Your task to perform on an android device: turn on location history Image 0: 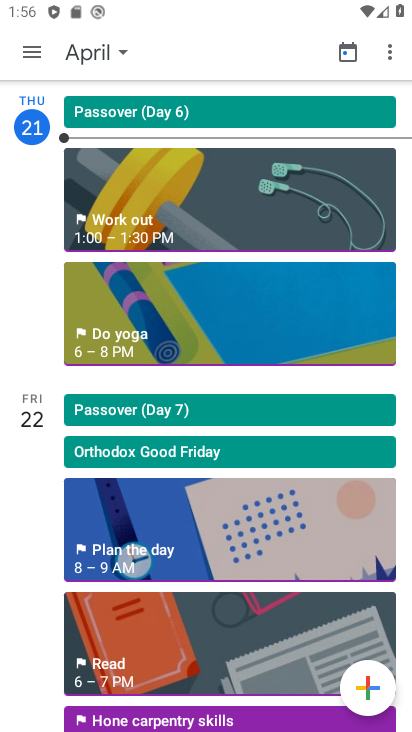
Step 0: press home button
Your task to perform on an android device: turn on location history Image 1: 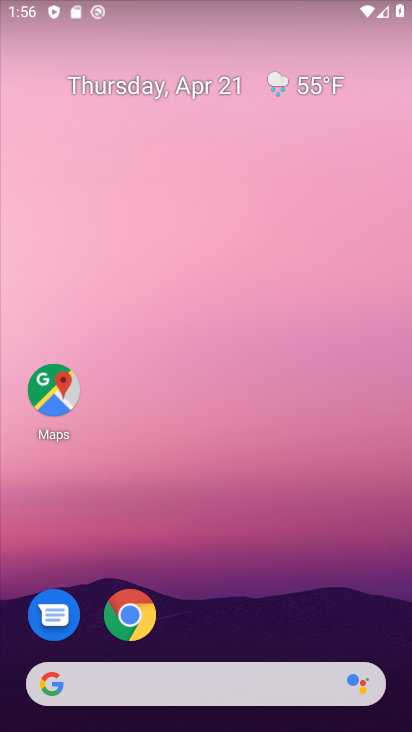
Step 1: drag from (238, 664) to (313, 212)
Your task to perform on an android device: turn on location history Image 2: 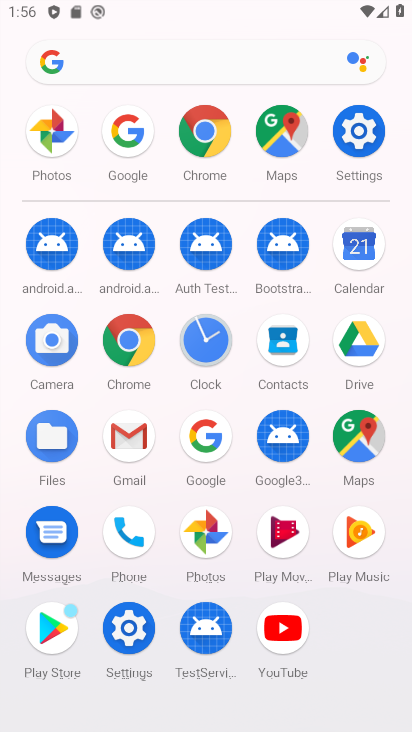
Step 2: click (359, 138)
Your task to perform on an android device: turn on location history Image 3: 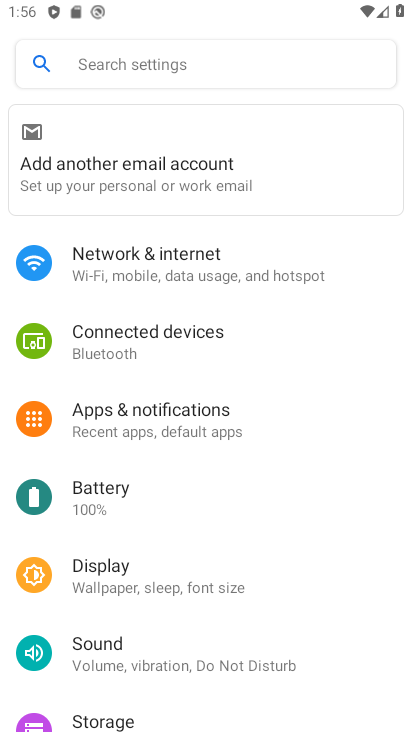
Step 3: drag from (143, 708) to (223, 353)
Your task to perform on an android device: turn on location history Image 4: 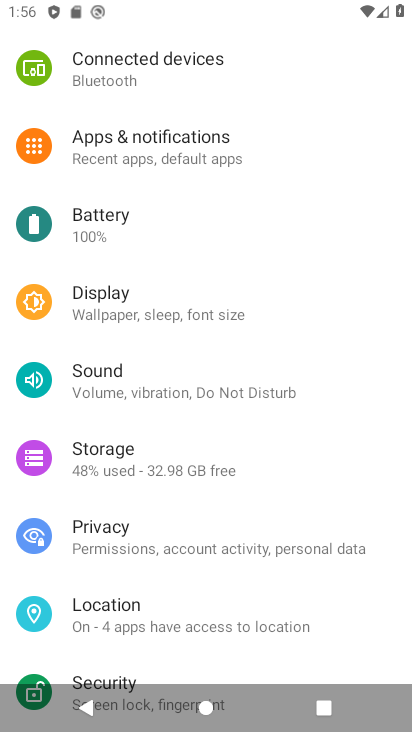
Step 4: click (131, 620)
Your task to perform on an android device: turn on location history Image 5: 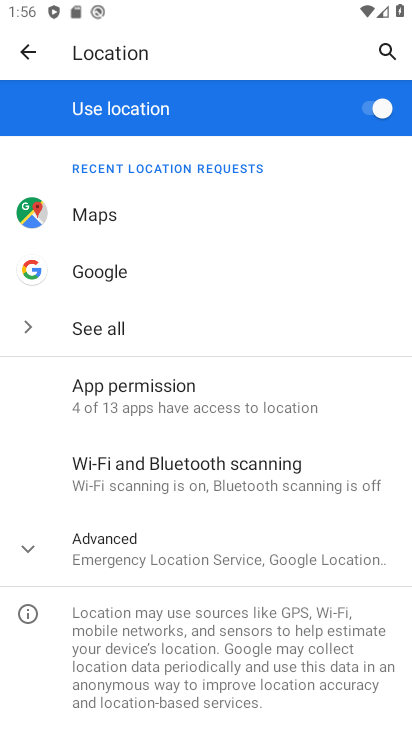
Step 5: click (120, 547)
Your task to perform on an android device: turn on location history Image 6: 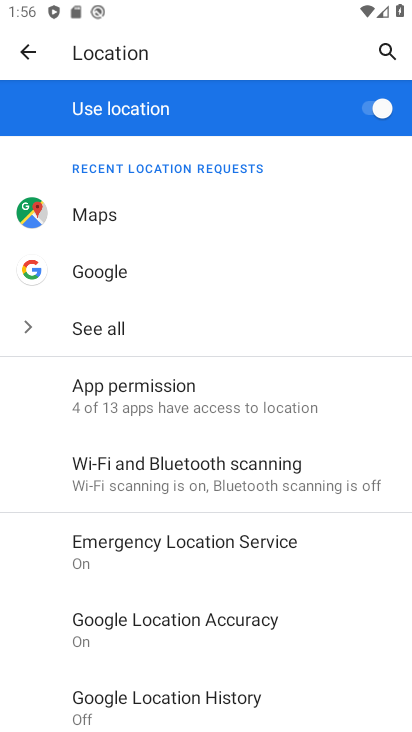
Step 6: click (144, 702)
Your task to perform on an android device: turn on location history Image 7: 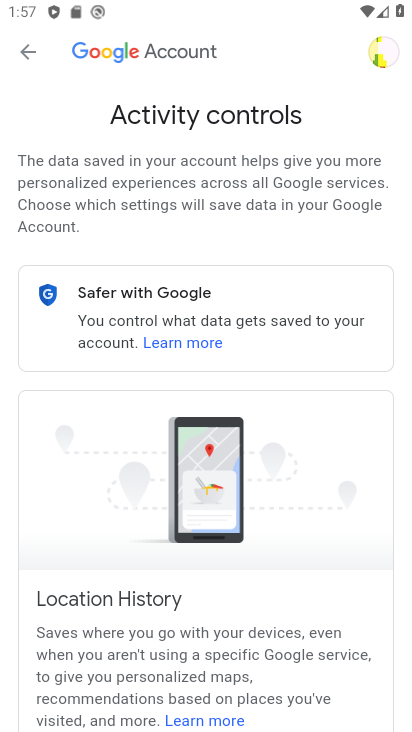
Step 7: task complete